Your task to perform on an android device: Go to CNN.com Image 0: 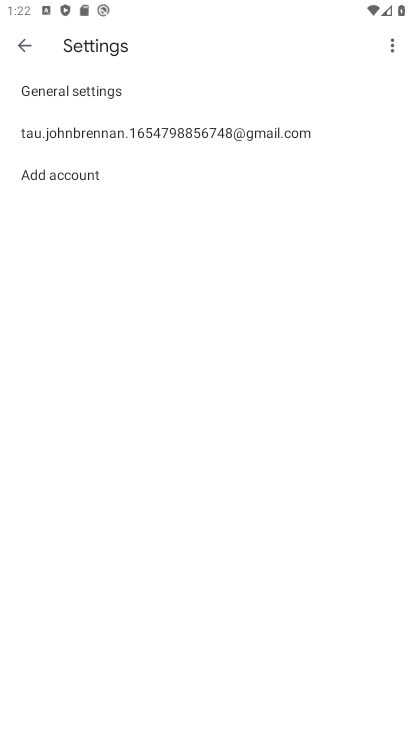
Step 0: press home button
Your task to perform on an android device: Go to CNN.com Image 1: 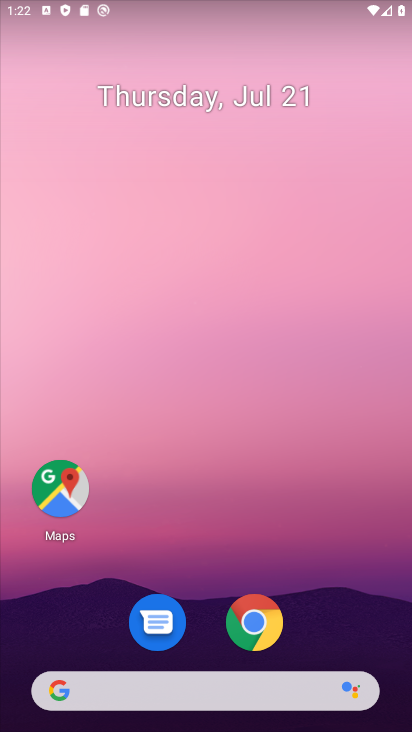
Step 1: click (245, 608)
Your task to perform on an android device: Go to CNN.com Image 2: 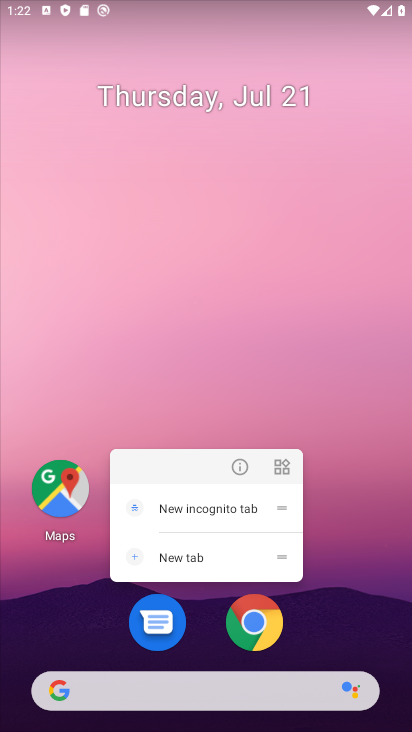
Step 2: click (243, 623)
Your task to perform on an android device: Go to CNN.com Image 3: 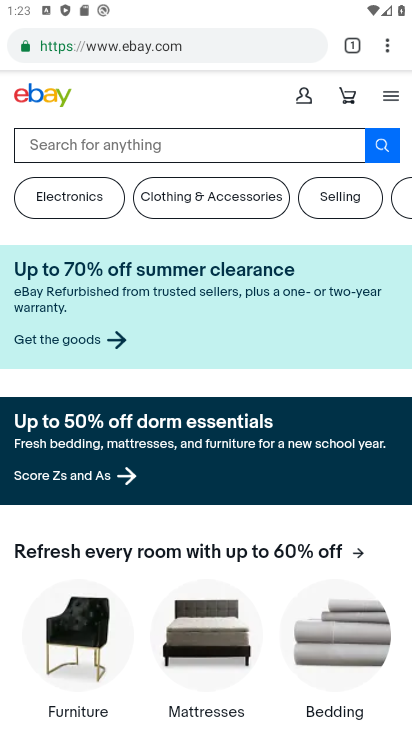
Step 3: click (194, 51)
Your task to perform on an android device: Go to CNN.com Image 4: 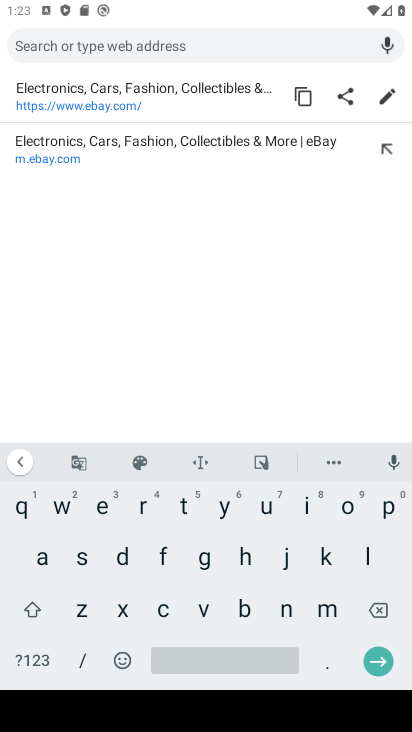
Step 4: click (165, 617)
Your task to perform on an android device: Go to CNN.com Image 5: 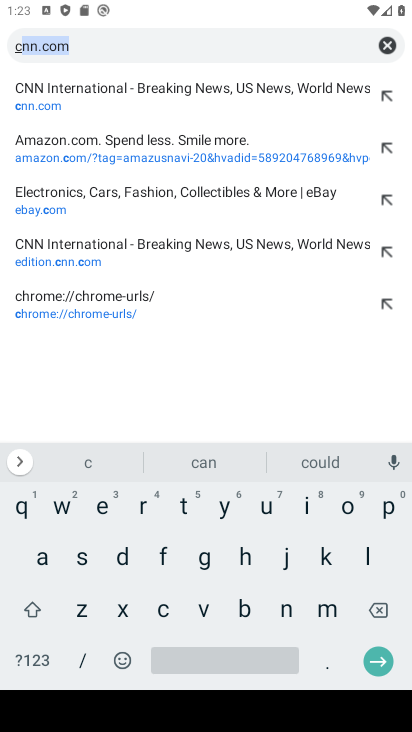
Step 5: click (155, 51)
Your task to perform on an android device: Go to CNN.com Image 6: 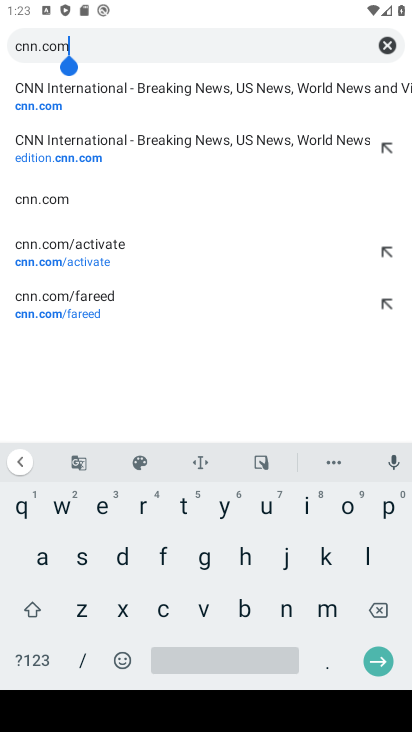
Step 6: click (384, 653)
Your task to perform on an android device: Go to CNN.com Image 7: 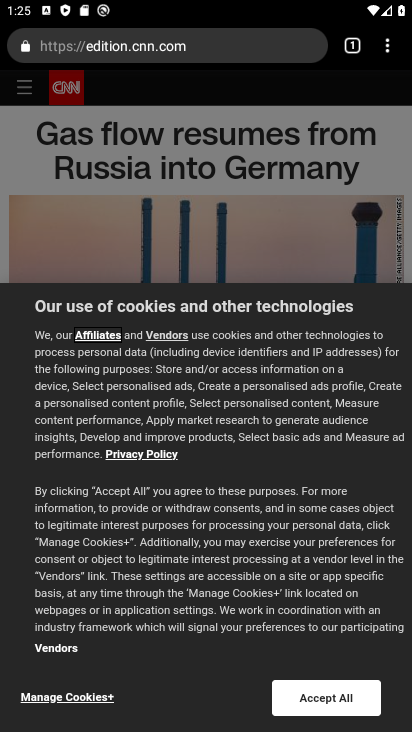
Step 7: task complete